Your task to perform on an android device: What's the weather going to be tomorrow? Image 0: 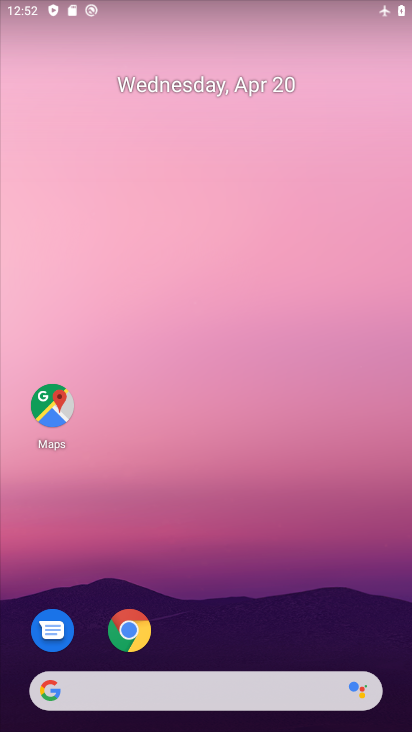
Step 0: drag from (192, 640) to (107, 214)
Your task to perform on an android device: What's the weather going to be tomorrow? Image 1: 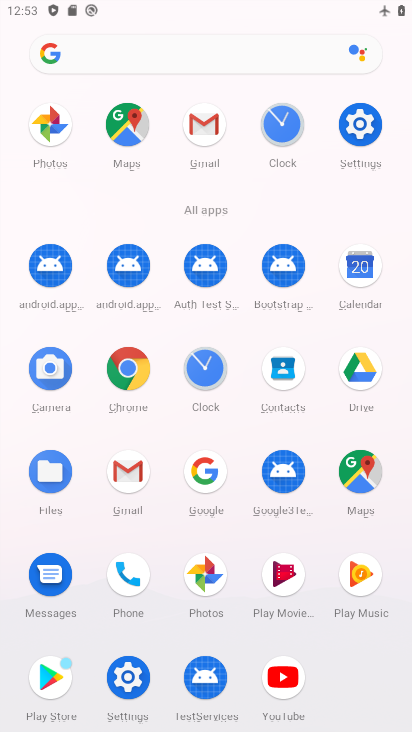
Step 1: click (131, 359)
Your task to perform on an android device: What's the weather going to be tomorrow? Image 2: 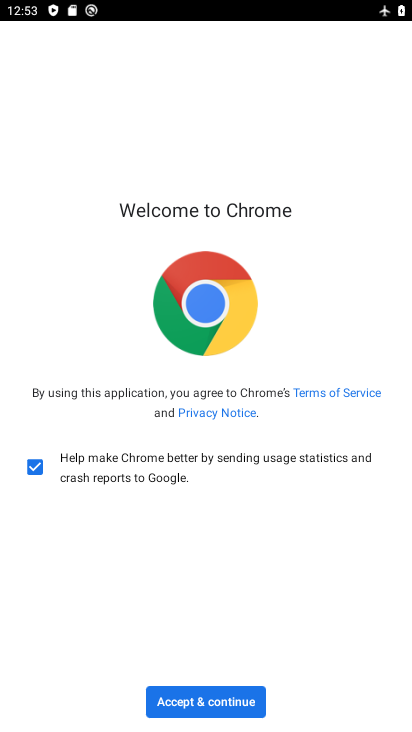
Step 2: click (196, 705)
Your task to perform on an android device: What's the weather going to be tomorrow? Image 3: 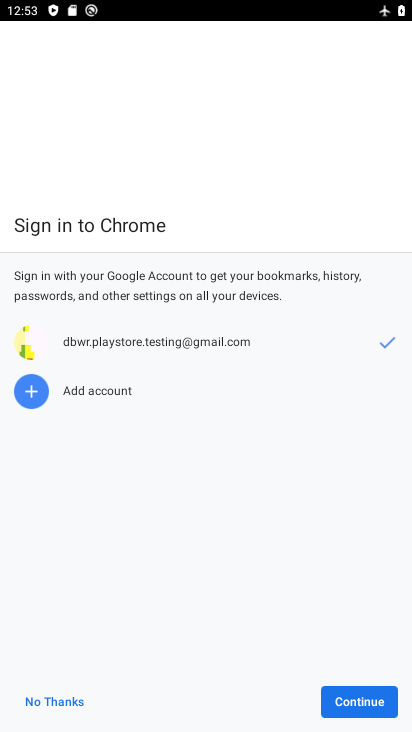
Step 3: click (371, 697)
Your task to perform on an android device: What's the weather going to be tomorrow? Image 4: 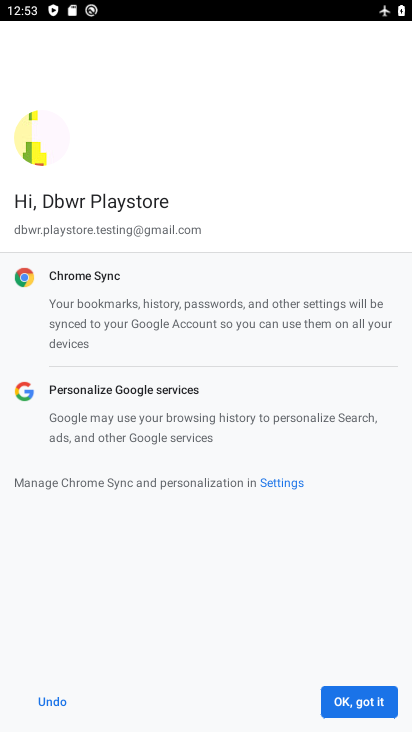
Step 4: click (371, 697)
Your task to perform on an android device: What's the weather going to be tomorrow? Image 5: 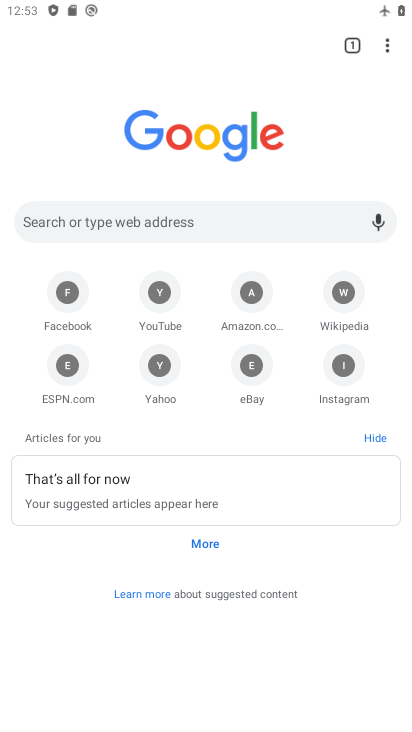
Step 5: click (169, 217)
Your task to perform on an android device: What's the weather going to be tomorrow? Image 6: 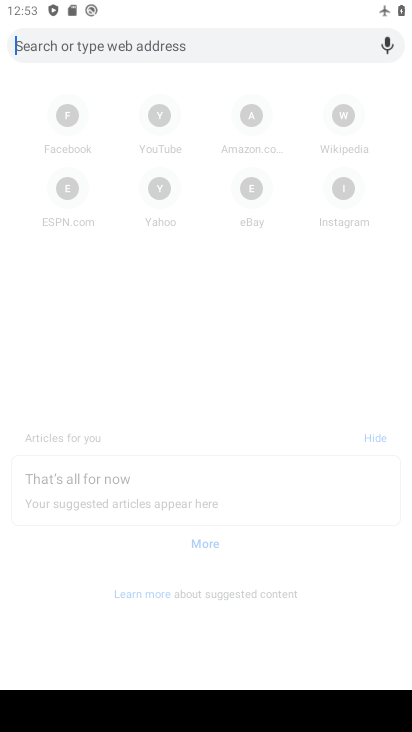
Step 6: type "whats the weather going to be tomorrow"
Your task to perform on an android device: What's the weather going to be tomorrow? Image 7: 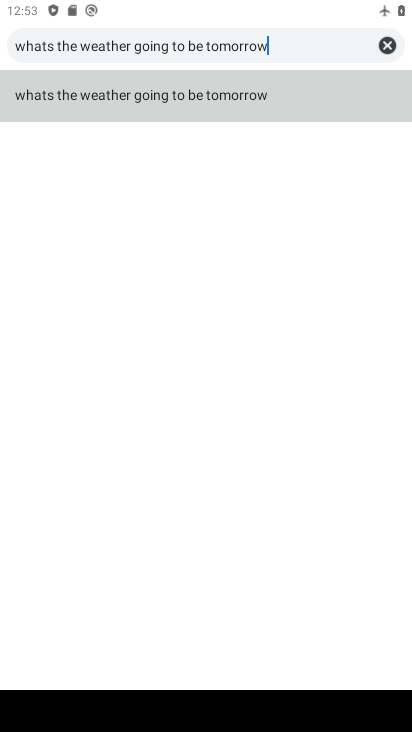
Step 7: click (182, 94)
Your task to perform on an android device: What's the weather going to be tomorrow? Image 8: 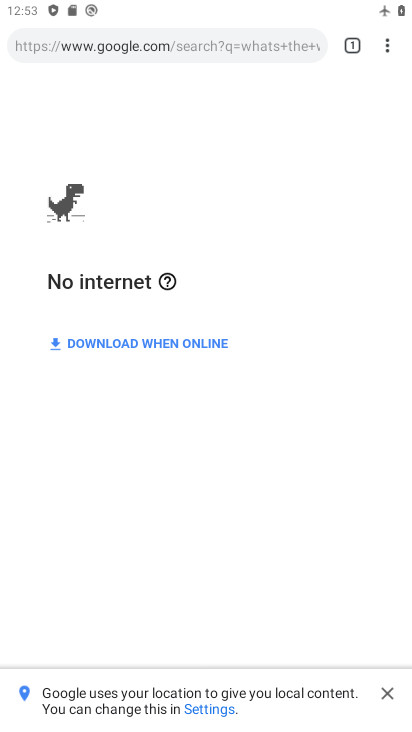
Step 8: task complete